Your task to perform on an android device: add a contact in the contacts app Image 0: 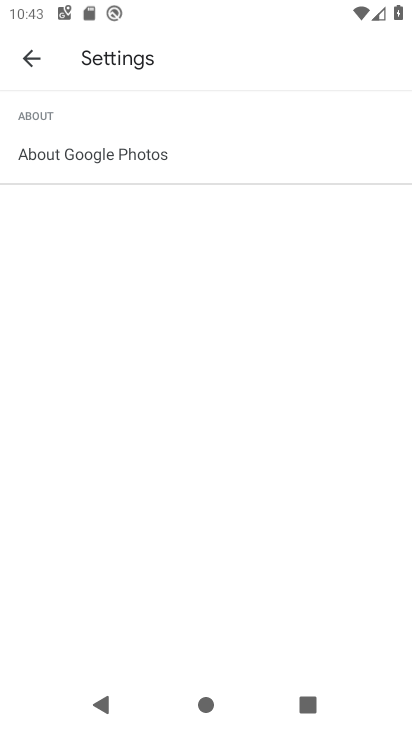
Step 0: press home button
Your task to perform on an android device: add a contact in the contacts app Image 1: 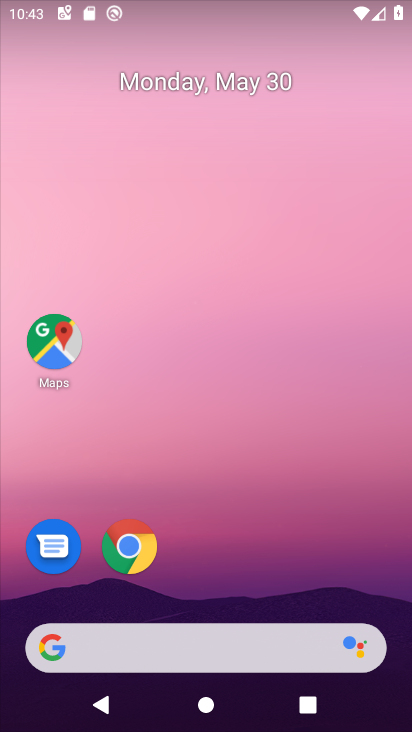
Step 1: drag from (202, 600) to (252, 382)
Your task to perform on an android device: add a contact in the contacts app Image 2: 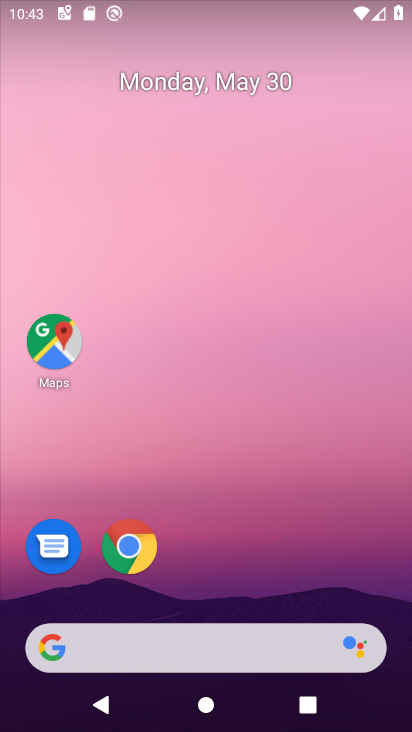
Step 2: drag from (228, 523) to (290, 4)
Your task to perform on an android device: add a contact in the contacts app Image 3: 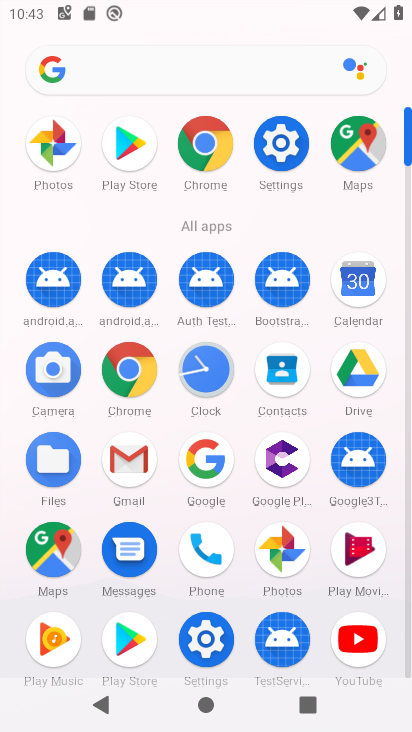
Step 3: click (279, 373)
Your task to perform on an android device: add a contact in the contacts app Image 4: 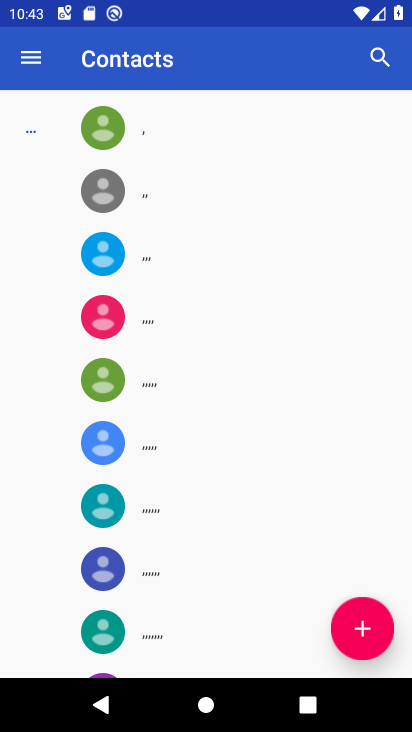
Step 4: click (373, 642)
Your task to perform on an android device: add a contact in the contacts app Image 5: 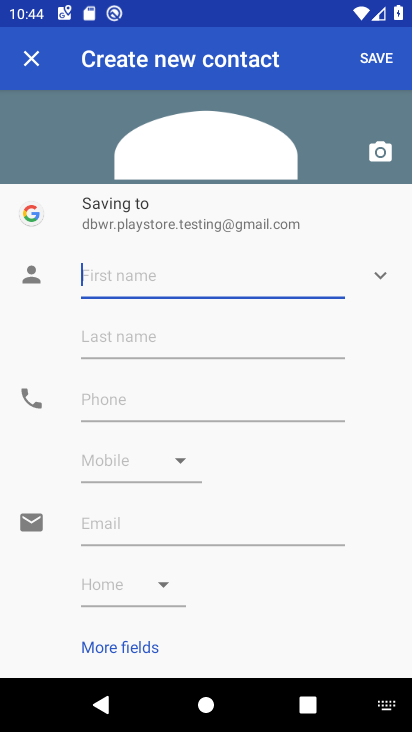
Step 5: type "blade"
Your task to perform on an android device: add a contact in the contacts app Image 6: 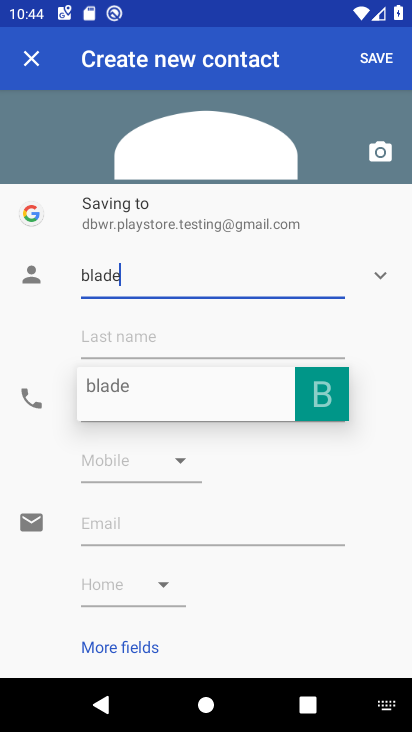
Step 6: click (383, 48)
Your task to perform on an android device: add a contact in the contacts app Image 7: 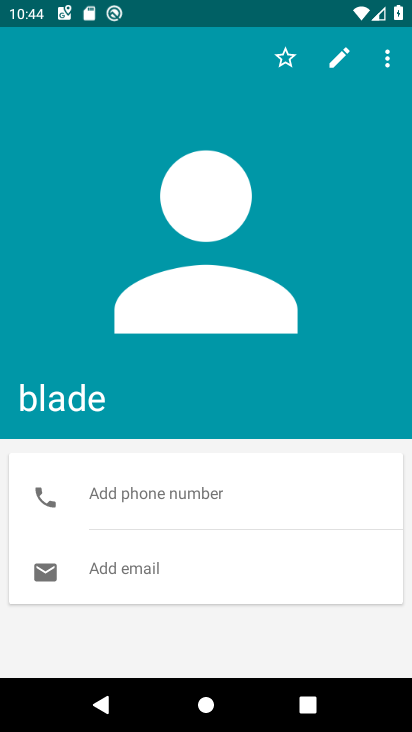
Step 7: task complete